Your task to perform on an android device: Open settings Image 0: 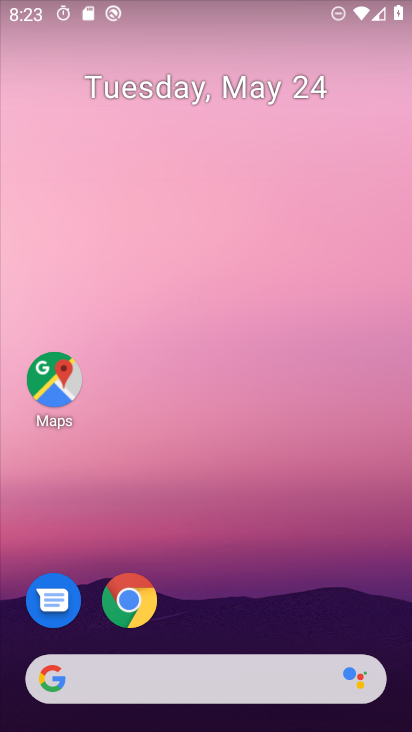
Step 0: drag from (261, 588) to (272, 80)
Your task to perform on an android device: Open settings Image 1: 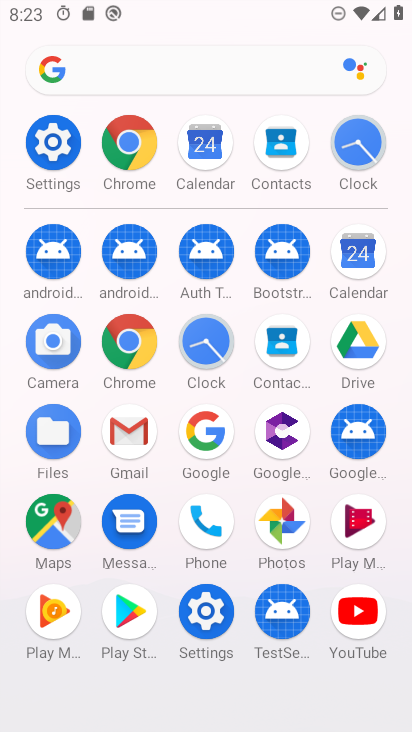
Step 1: click (48, 127)
Your task to perform on an android device: Open settings Image 2: 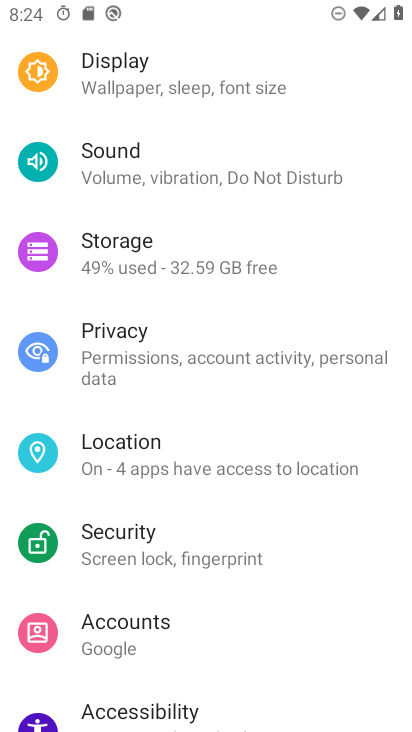
Step 2: task complete